Your task to perform on an android device: Go to sound settings Image 0: 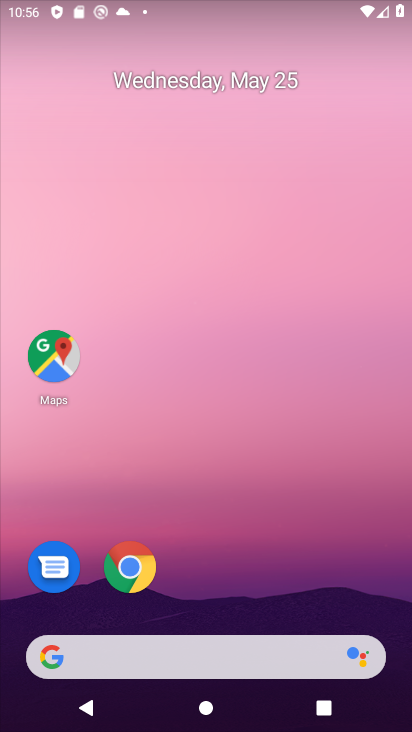
Step 0: drag from (226, 600) to (279, 97)
Your task to perform on an android device: Go to sound settings Image 1: 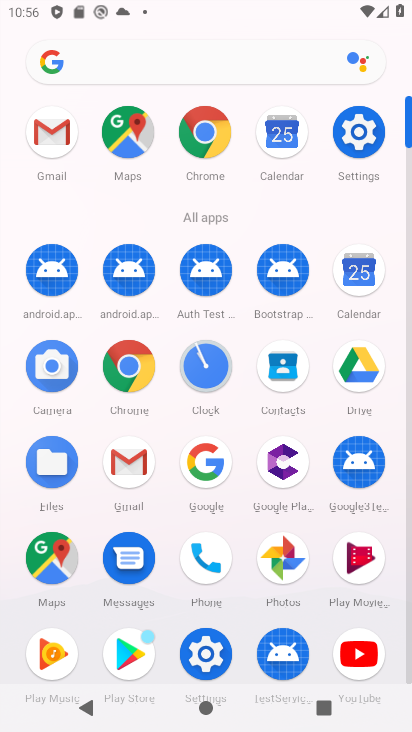
Step 1: click (360, 150)
Your task to perform on an android device: Go to sound settings Image 2: 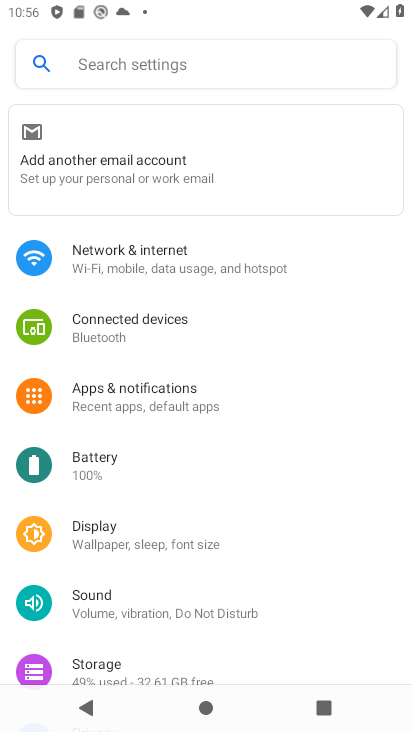
Step 2: click (108, 604)
Your task to perform on an android device: Go to sound settings Image 3: 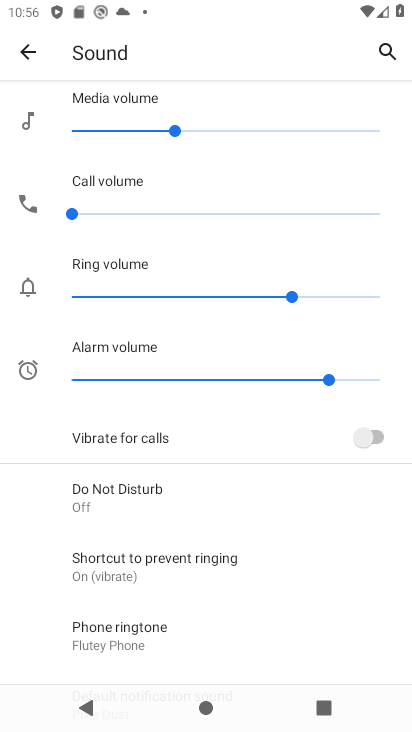
Step 3: task complete